Your task to perform on an android device: check android version Image 0: 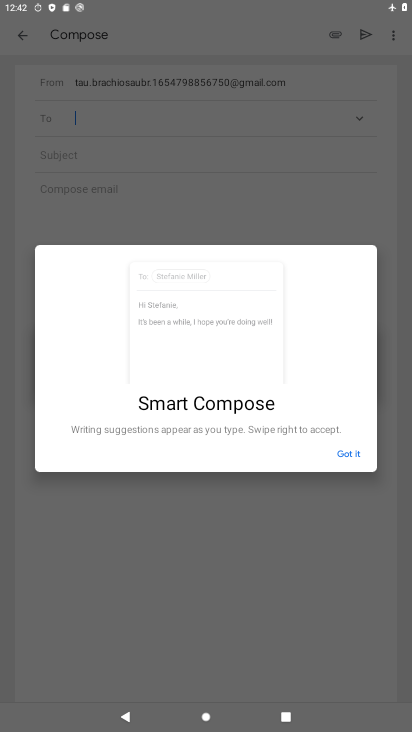
Step 0: press home button
Your task to perform on an android device: check android version Image 1: 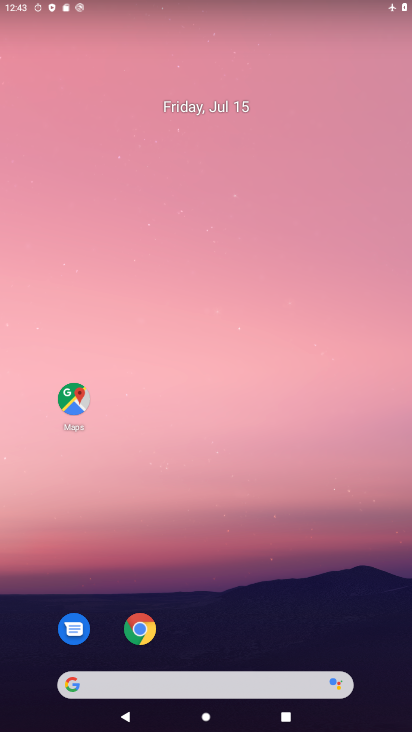
Step 1: drag from (212, 662) to (225, 125)
Your task to perform on an android device: check android version Image 2: 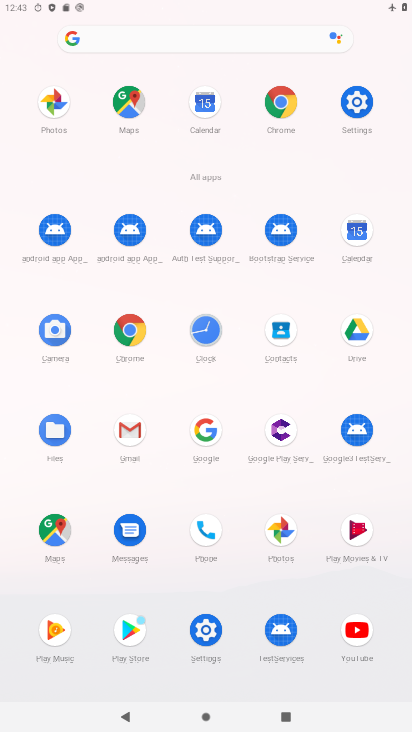
Step 2: click (203, 638)
Your task to perform on an android device: check android version Image 3: 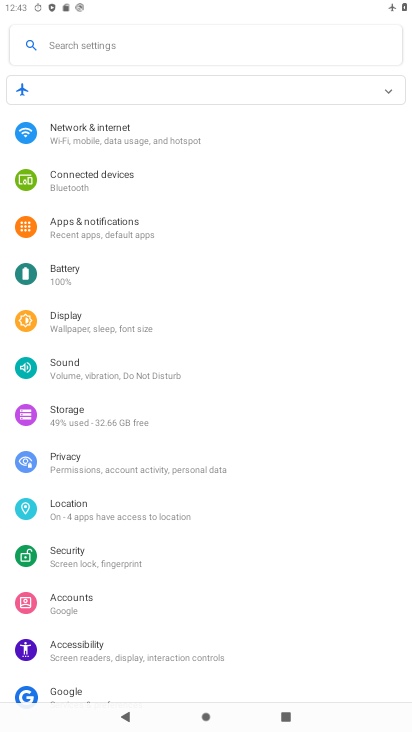
Step 3: drag from (114, 635) to (139, 236)
Your task to perform on an android device: check android version Image 4: 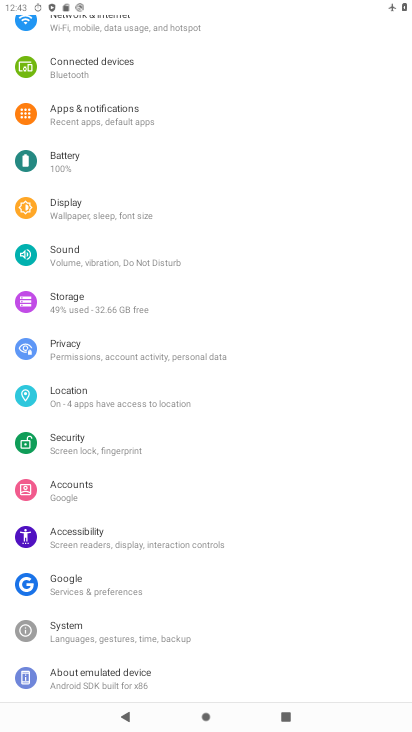
Step 4: drag from (87, 667) to (119, 491)
Your task to perform on an android device: check android version Image 5: 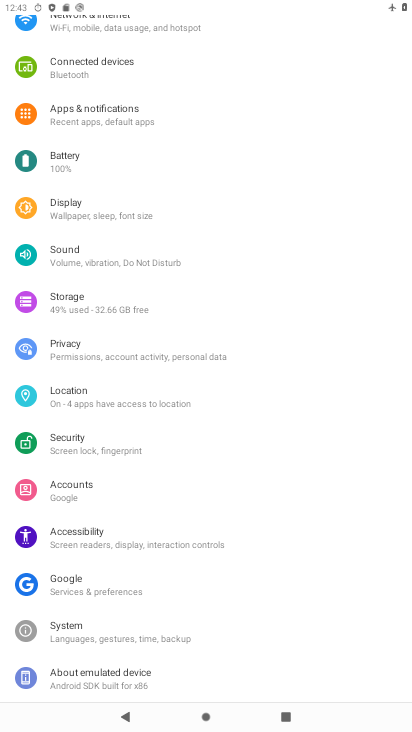
Step 5: click (107, 672)
Your task to perform on an android device: check android version Image 6: 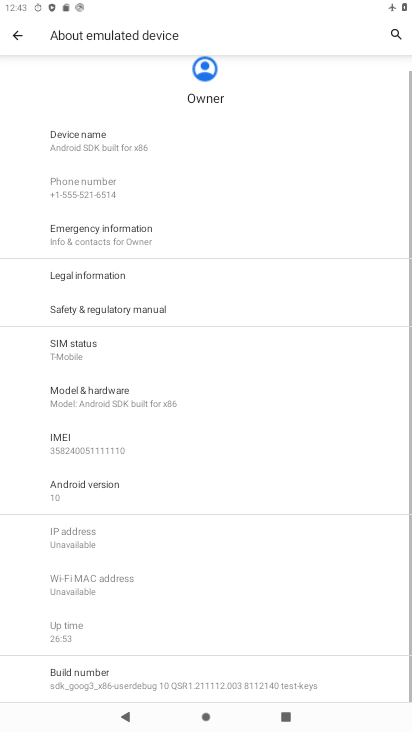
Step 6: click (98, 497)
Your task to perform on an android device: check android version Image 7: 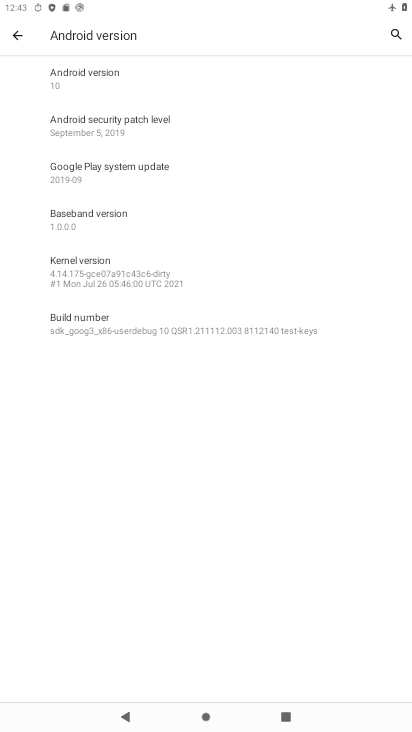
Step 7: task complete